Your task to perform on an android device: toggle sleep mode Image 0: 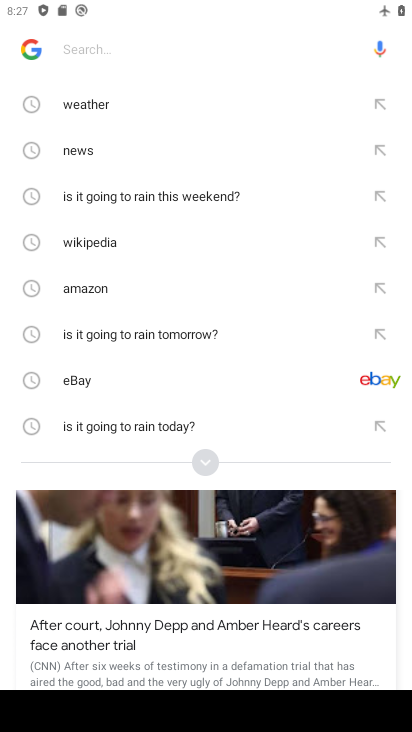
Step 0: press home button
Your task to perform on an android device: toggle sleep mode Image 1: 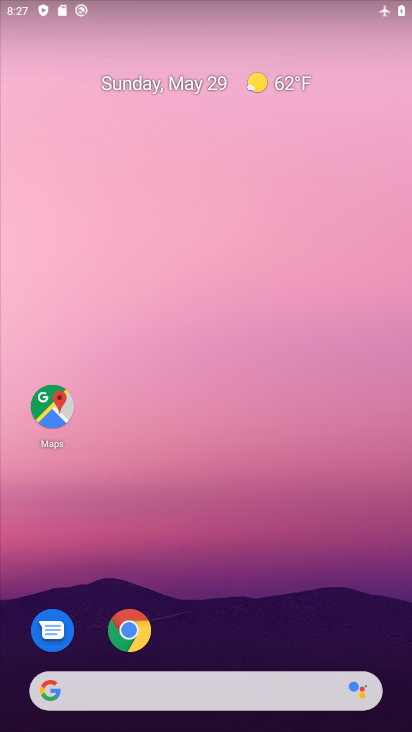
Step 1: drag from (381, 625) to (304, 68)
Your task to perform on an android device: toggle sleep mode Image 2: 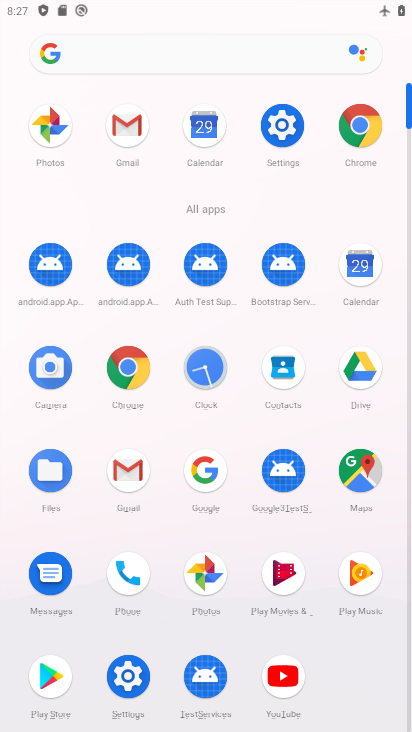
Step 2: click (285, 116)
Your task to perform on an android device: toggle sleep mode Image 3: 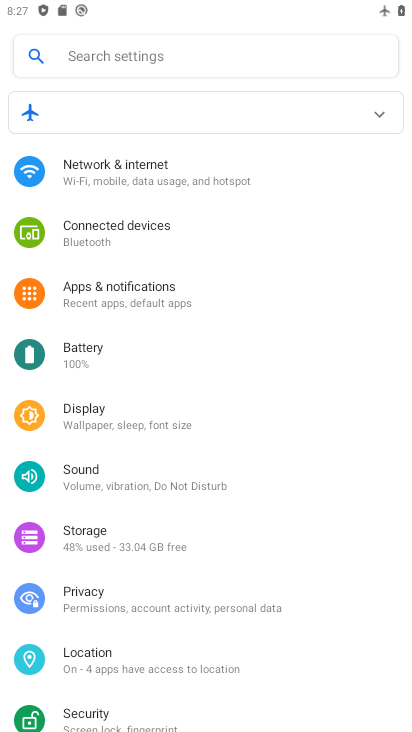
Step 3: click (100, 415)
Your task to perform on an android device: toggle sleep mode Image 4: 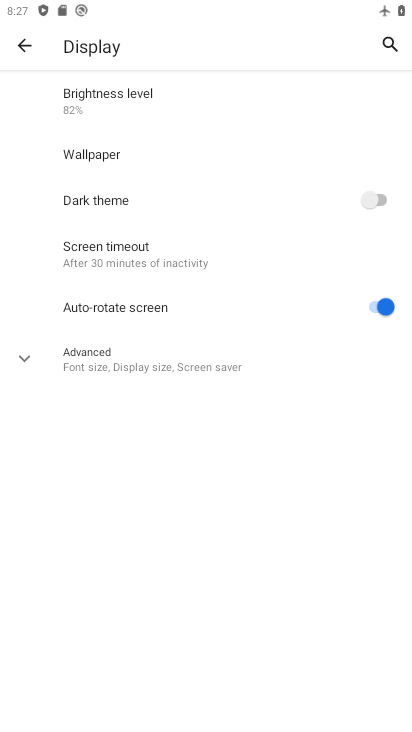
Step 4: click (99, 245)
Your task to perform on an android device: toggle sleep mode Image 5: 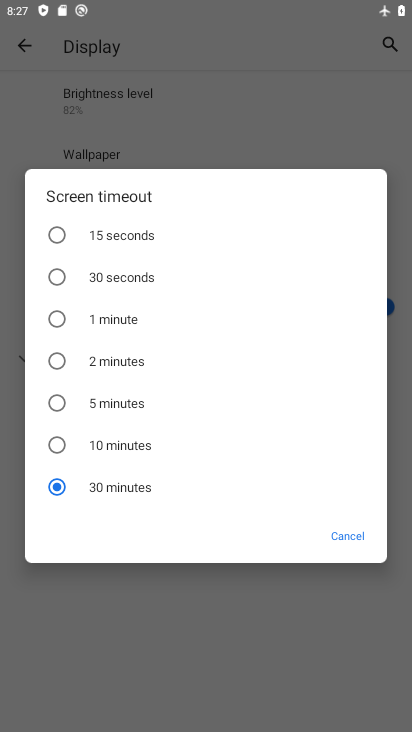
Step 5: click (52, 443)
Your task to perform on an android device: toggle sleep mode Image 6: 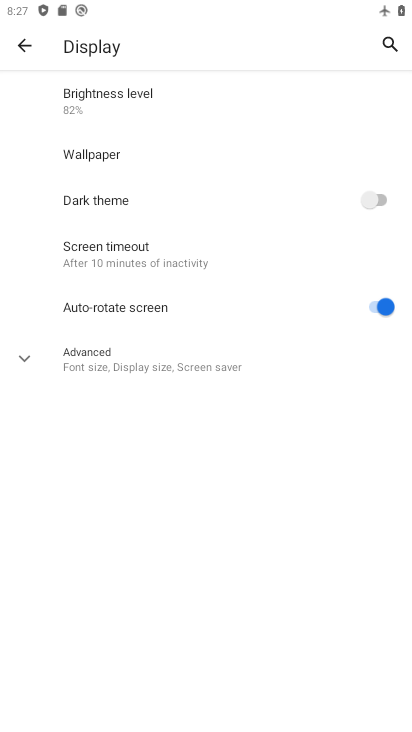
Step 6: task complete